Your task to perform on an android device: turn on data saver in the chrome app Image 0: 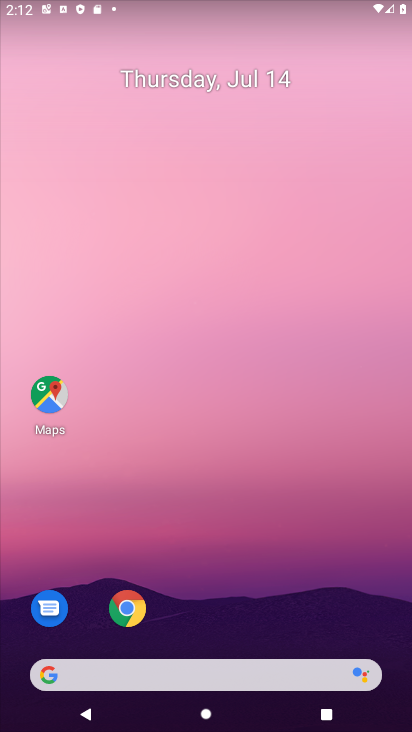
Step 0: click (126, 610)
Your task to perform on an android device: turn on data saver in the chrome app Image 1: 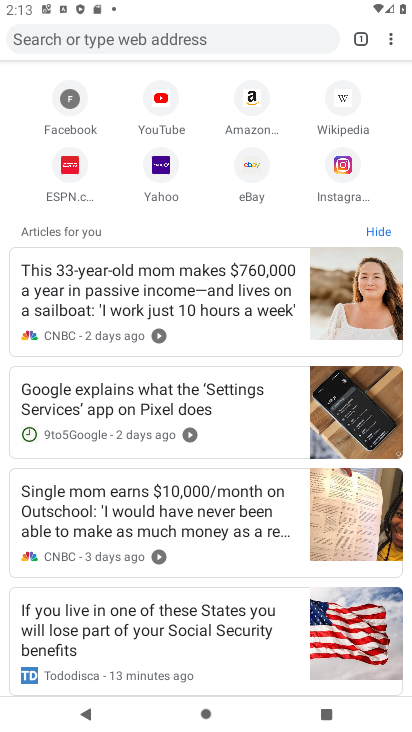
Step 1: click (389, 42)
Your task to perform on an android device: turn on data saver in the chrome app Image 2: 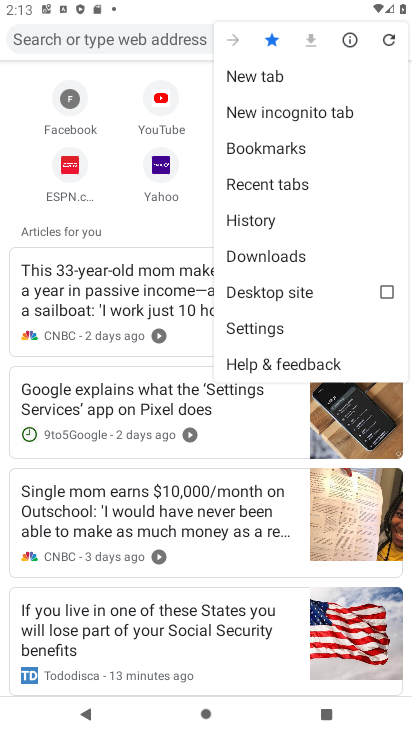
Step 2: click (255, 330)
Your task to perform on an android device: turn on data saver in the chrome app Image 3: 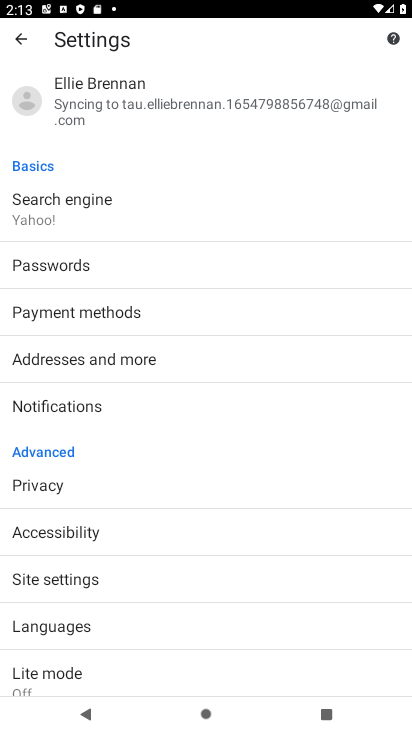
Step 3: click (59, 667)
Your task to perform on an android device: turn on data saver in the chrome app Image 4: 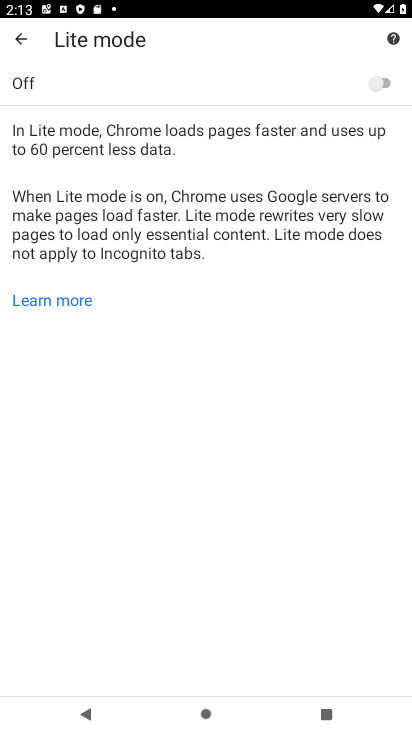
Step 4: click (385, 82)
Your task to perform on an android device: turn on data saver in the chrome app Image 5: 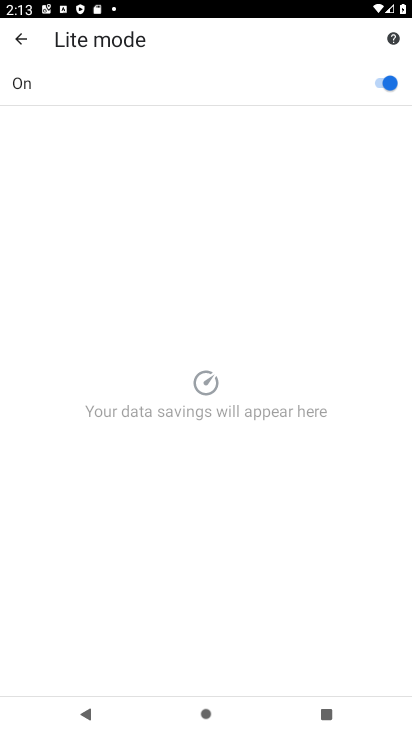
Step 5: task complete